Your task to perform on an android device: open wifi settings Image 0: 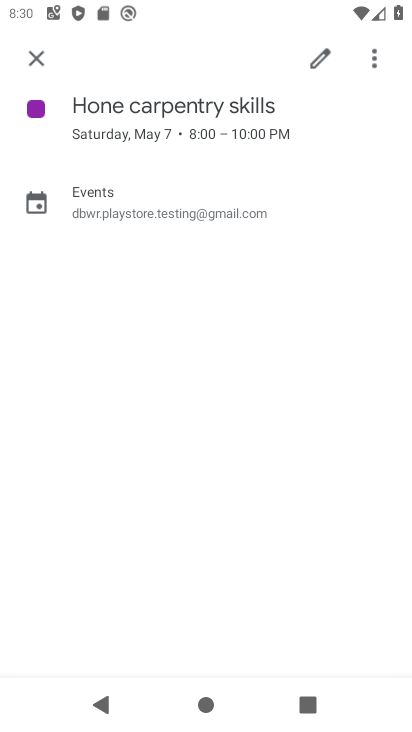
Step 0: press home button
Your task to perform on an android device: open wifi settings Image 1: 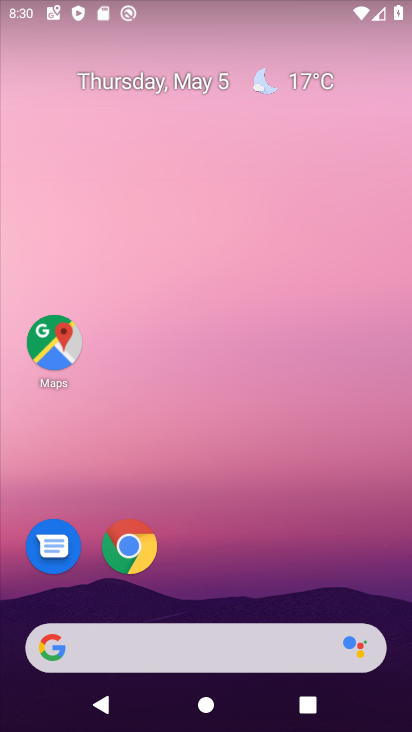
Step 1: drag from (167, 642) to (318, 127)
Your task to perform on an android device: open wifi settings Image 2: 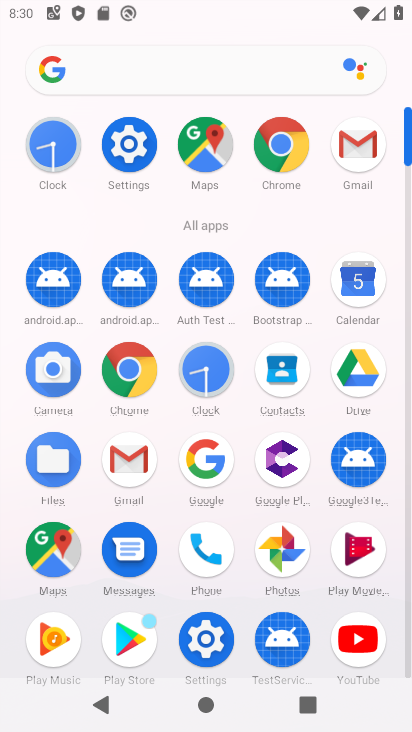
Step 2: click (123, 154)
Your task to perform on an android device: open wifi settings Image 3: 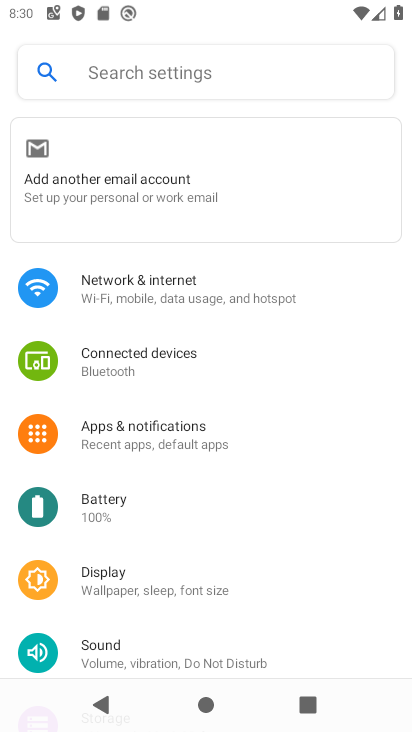
Step 3: click (177, 292)
Your task to perform on an android device: open wifi settings Image 4: 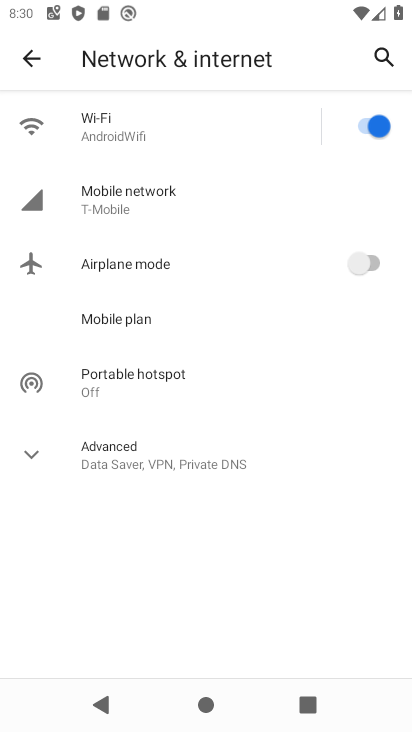
Step 4: click (146, 136)
Your task to perform on an android device: open wifi settings Image 5: 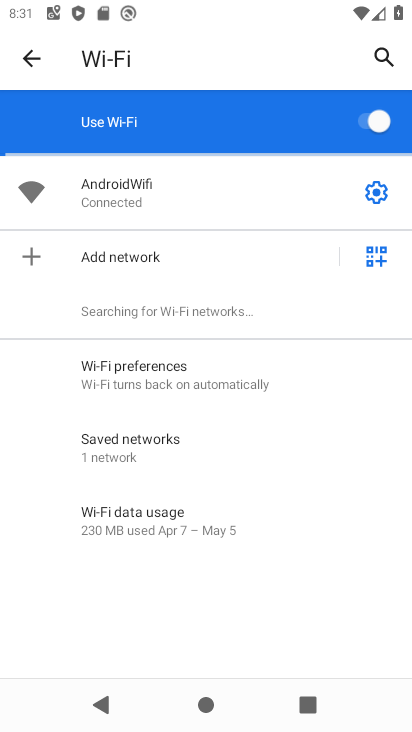
Step 5: task complete